Your task to perform on an android device: open sync settings in chrome Image 0: 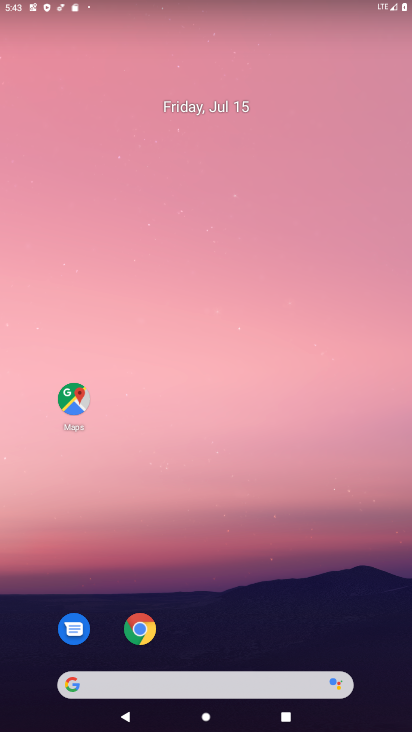
Step 0: press home button
Your task to perform on an android device: open sync settings in chrome Image 1: 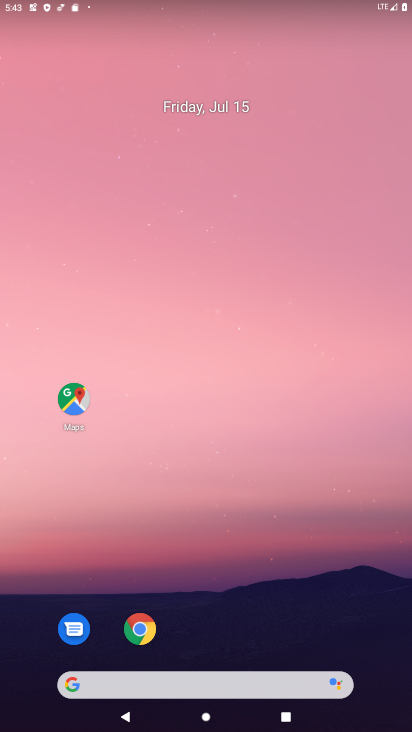
Step 1: drag from (246, 555) to (313, 6)
Your task to perform on an android device: open sync settings in chrome Image 2: 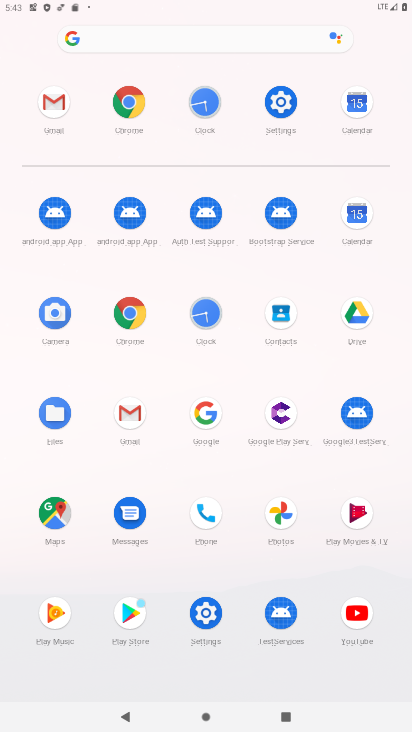
Step 2: click (122, 112)
Your task to perform on an android device: open sync settings in chrome Image 3: 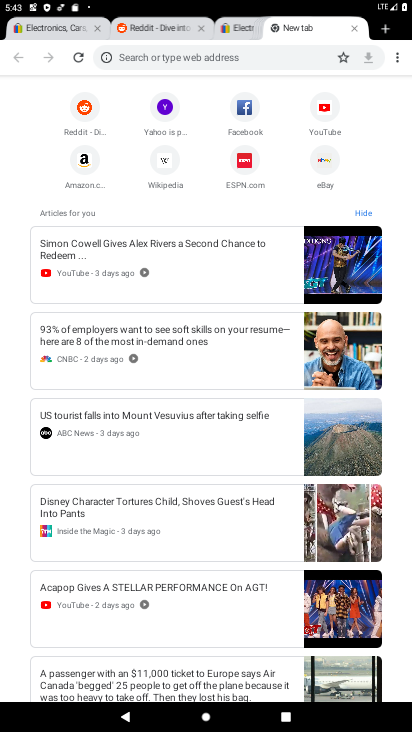
Step 3: drag from (403, 59) to (292, 263)
Your task to perform on an android device: open sync settings in chrome Image 4: 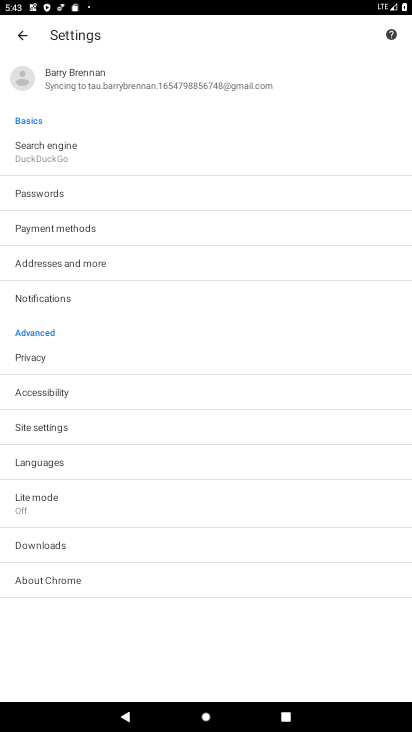
Step 4: click (90, 85)
Your task to perform on an android device: open sync settings in chrome Image 5: 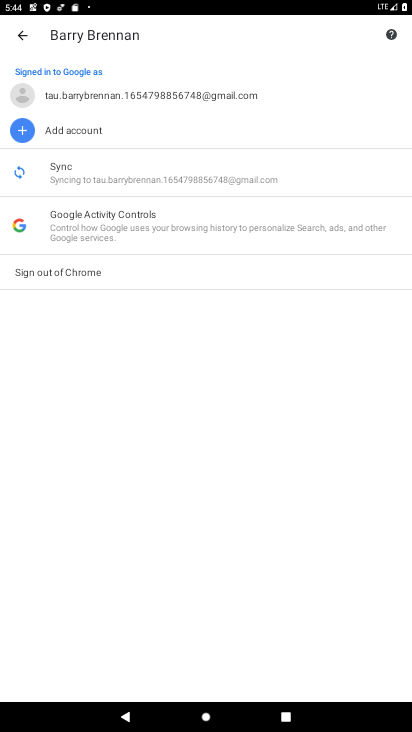
Step 5: click (56, 179)
Your task to perform on an android device: open sync settings in chrome Image 6: 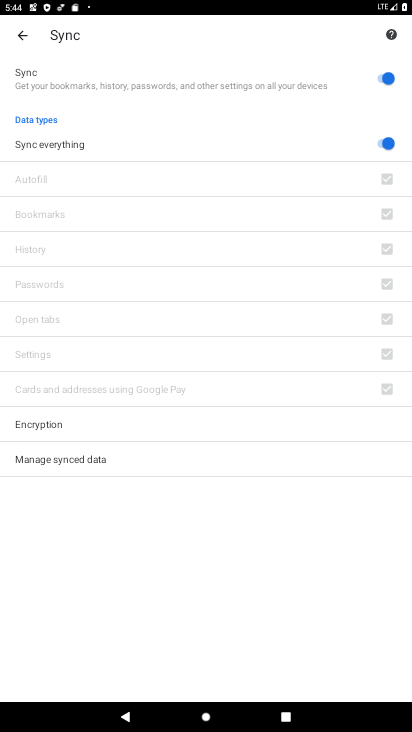
Step 6: task complete